Your task to perform on an android device: Clear the cart on amazon.com. Search for "lenovo thinkpad" on amazon.com, select the first entry, add it to the cart, then select checkout. Image 0: 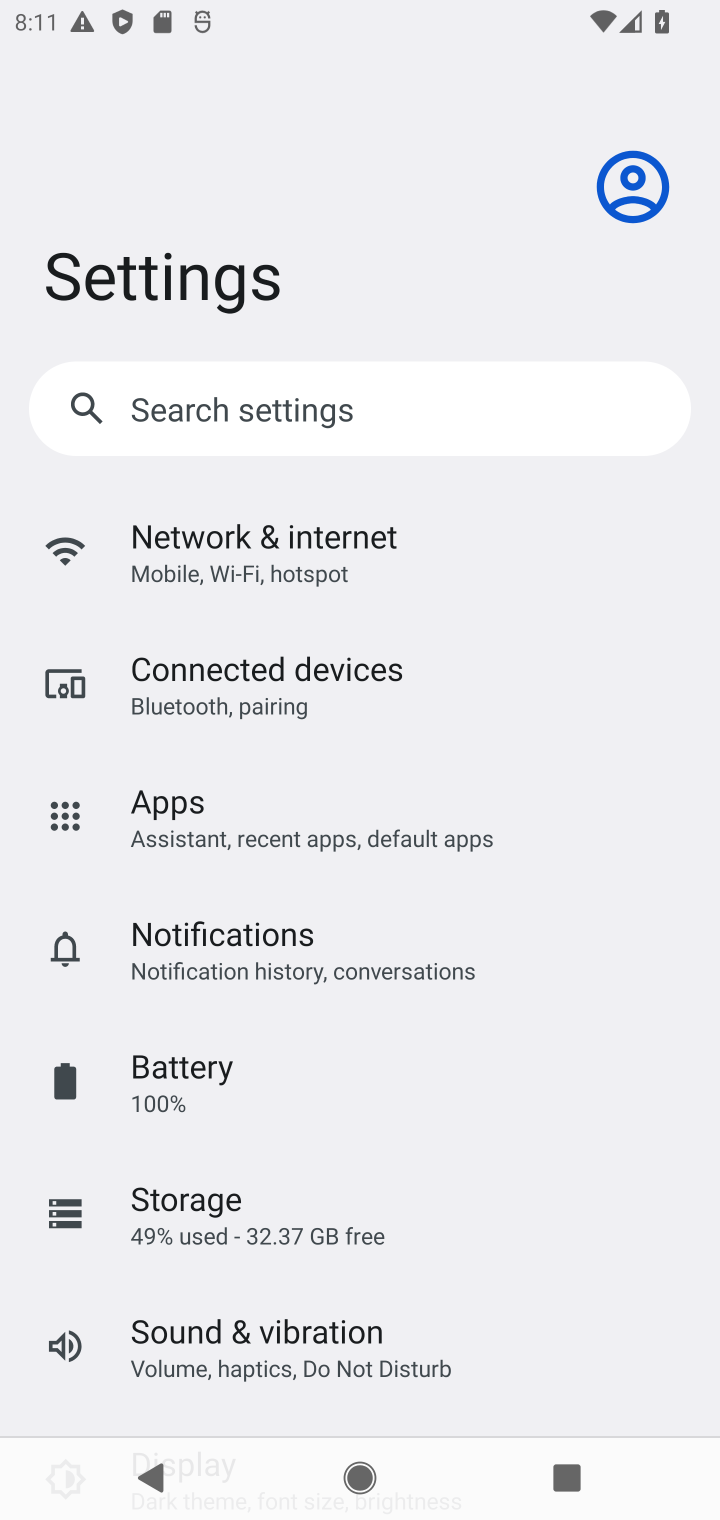
Step 0: press home button
Your task to perform on an android device: Clear the cart on amazon.com. Search for "lenovo thinkpad" on amazon.com, select the first entry, add it to the cart, then select checkout. Image 1: 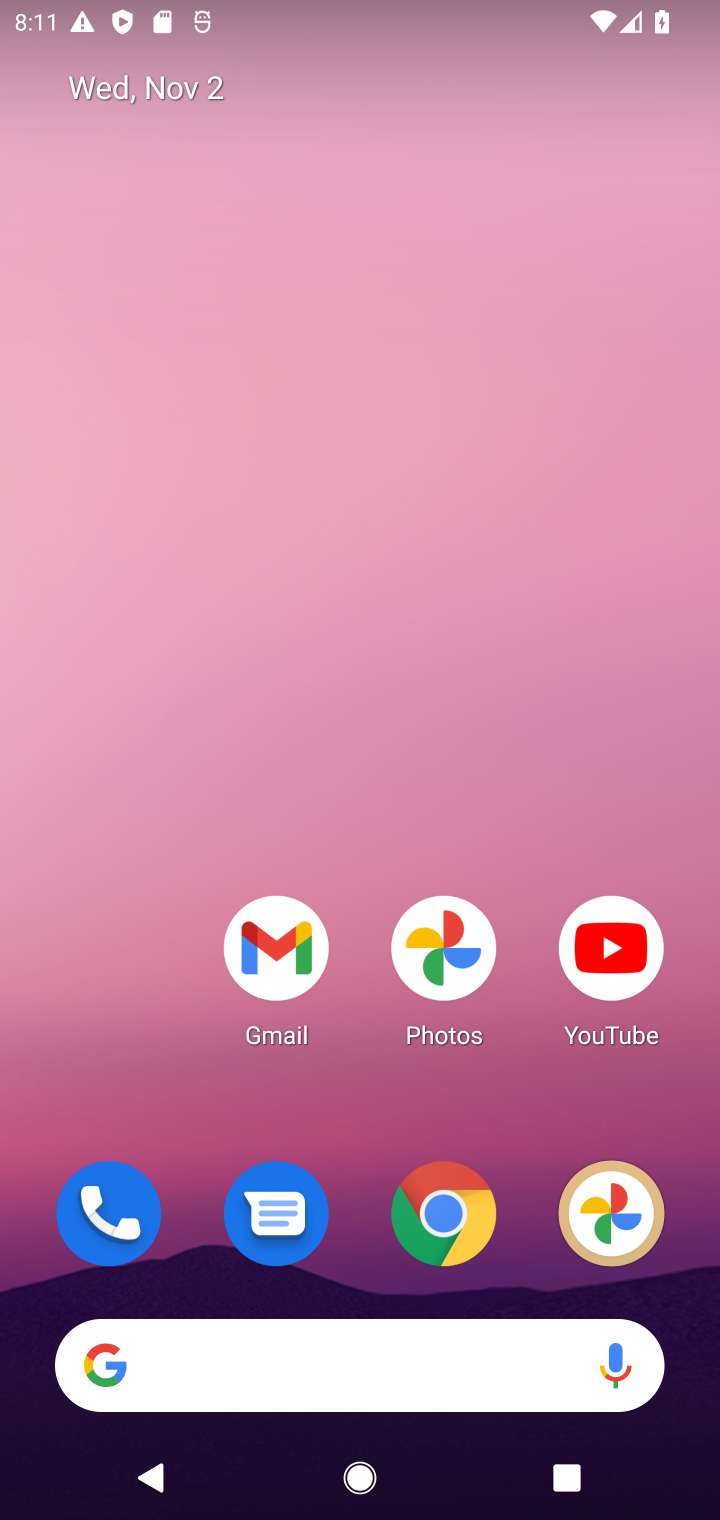
Step 1: click (461, 1240)
Your task to perform on an android device: Clear the cart on amazon.com. Search for "lenovo thinkpad" on amazon.com, select the first entry, add it to the cart, then select checkout. Image 2: 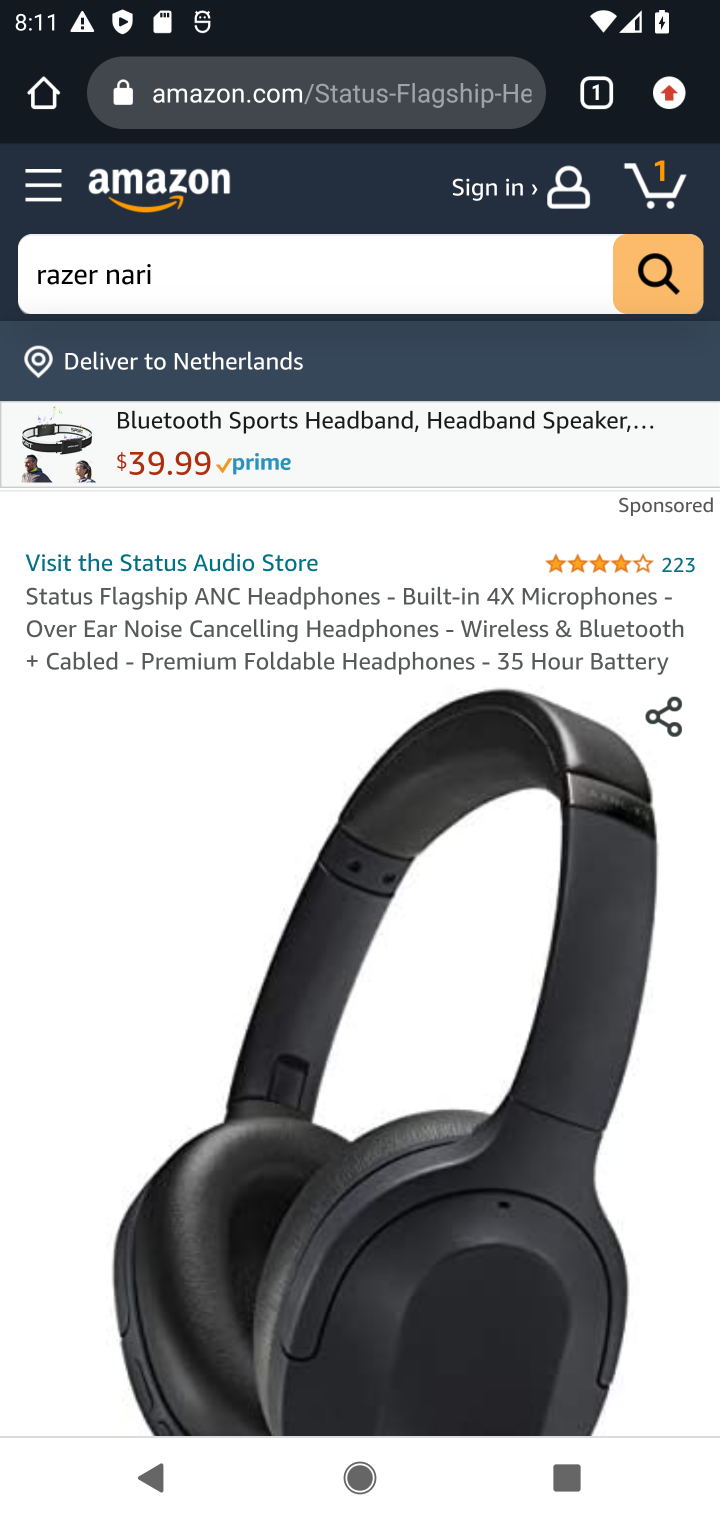
Step 2: click (667, 172)
Your task to perform on an android device: Clear the cart on amazon.com. Search for "lenovo thinkpad" on amazon.com, select the first entry, add it to the cart, then select checkout. Image 3: 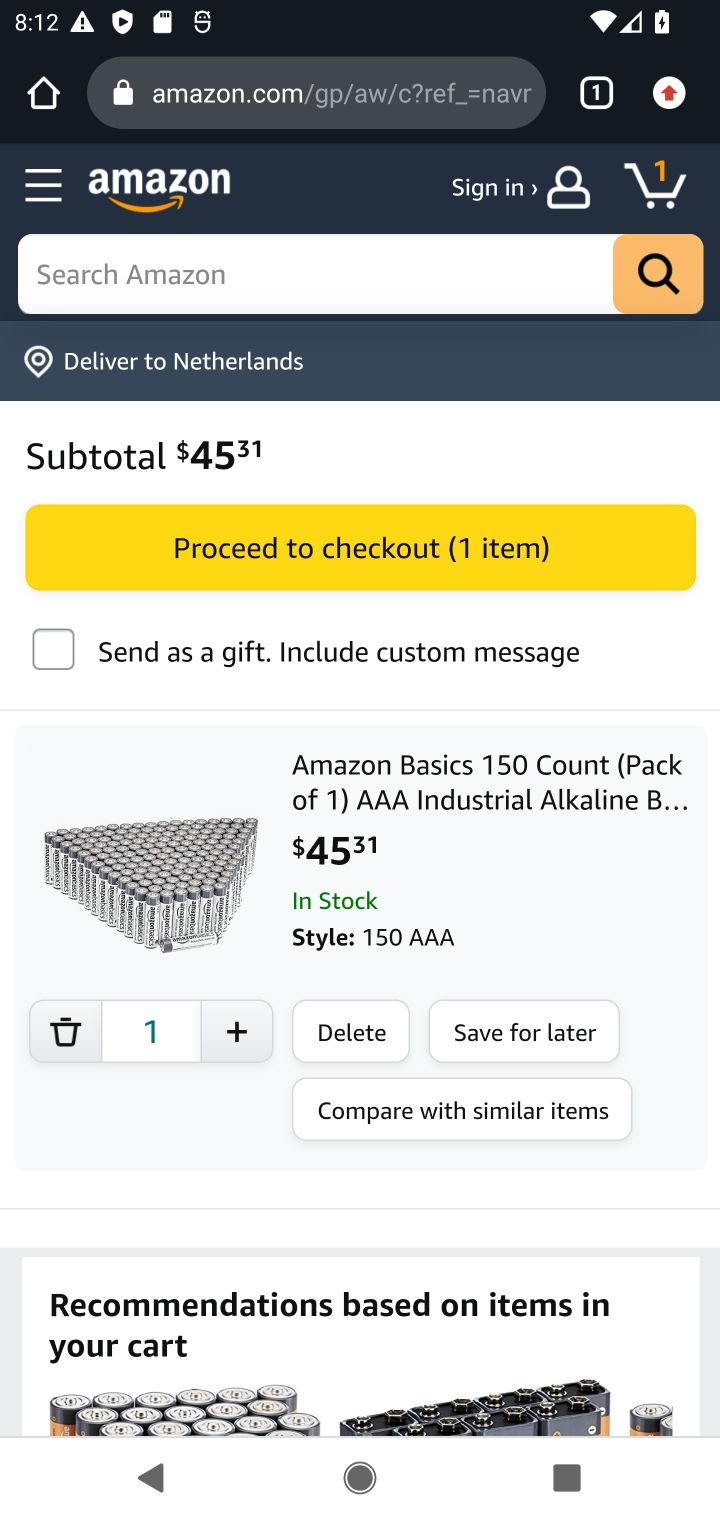
Step 3: click (323, 1030)
Your task to perform on an android device: Clear the cart on amazon.com. Search for "lenovo thinkpad" on amazon.com, select the first entry, add it to the cart, then select checkout. Image 4: 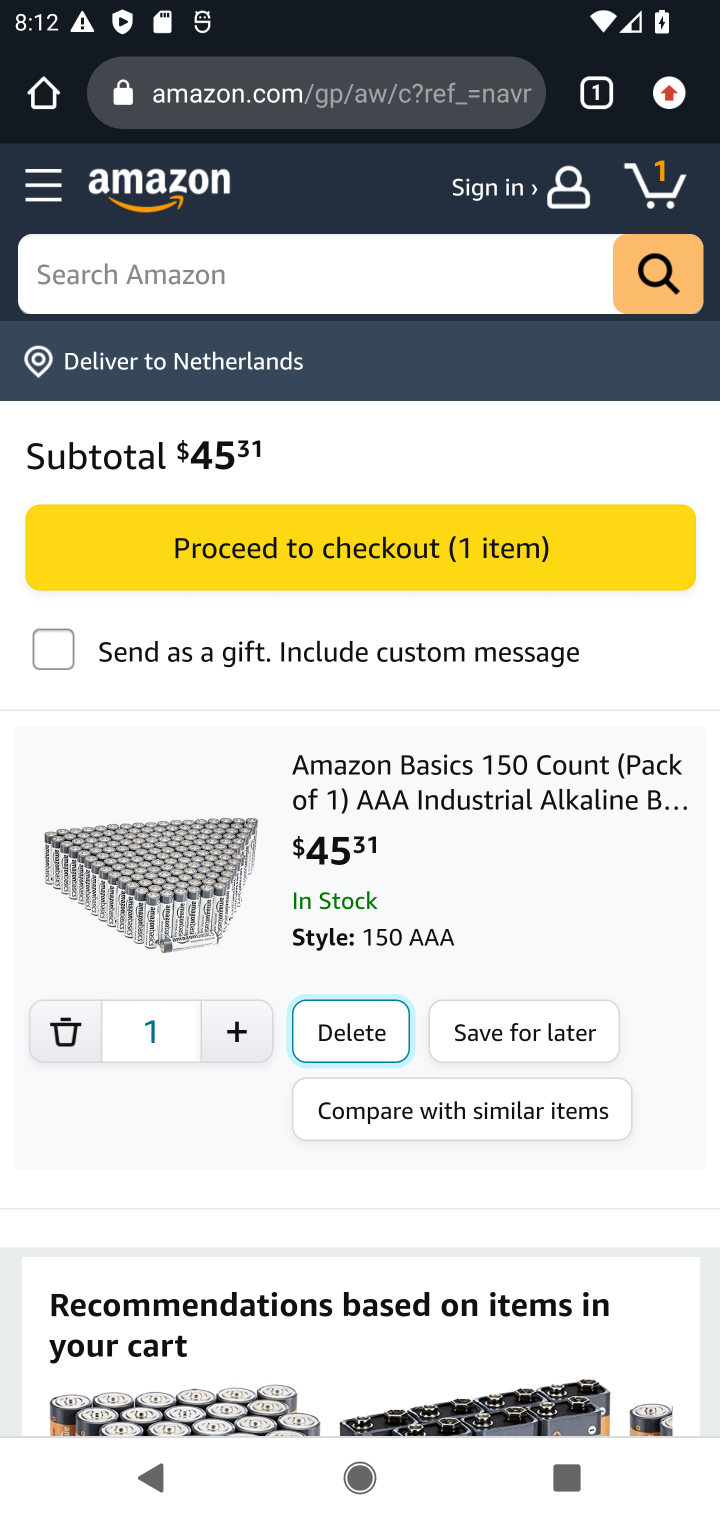
Step 4: click (346, 1026)
Your task to perform on an android device: Clear the cart on amazon.com. Search for "lenovo thinkpad" on amazon.com, select the first entry, add it to the cart, then select checkout. Image 5: 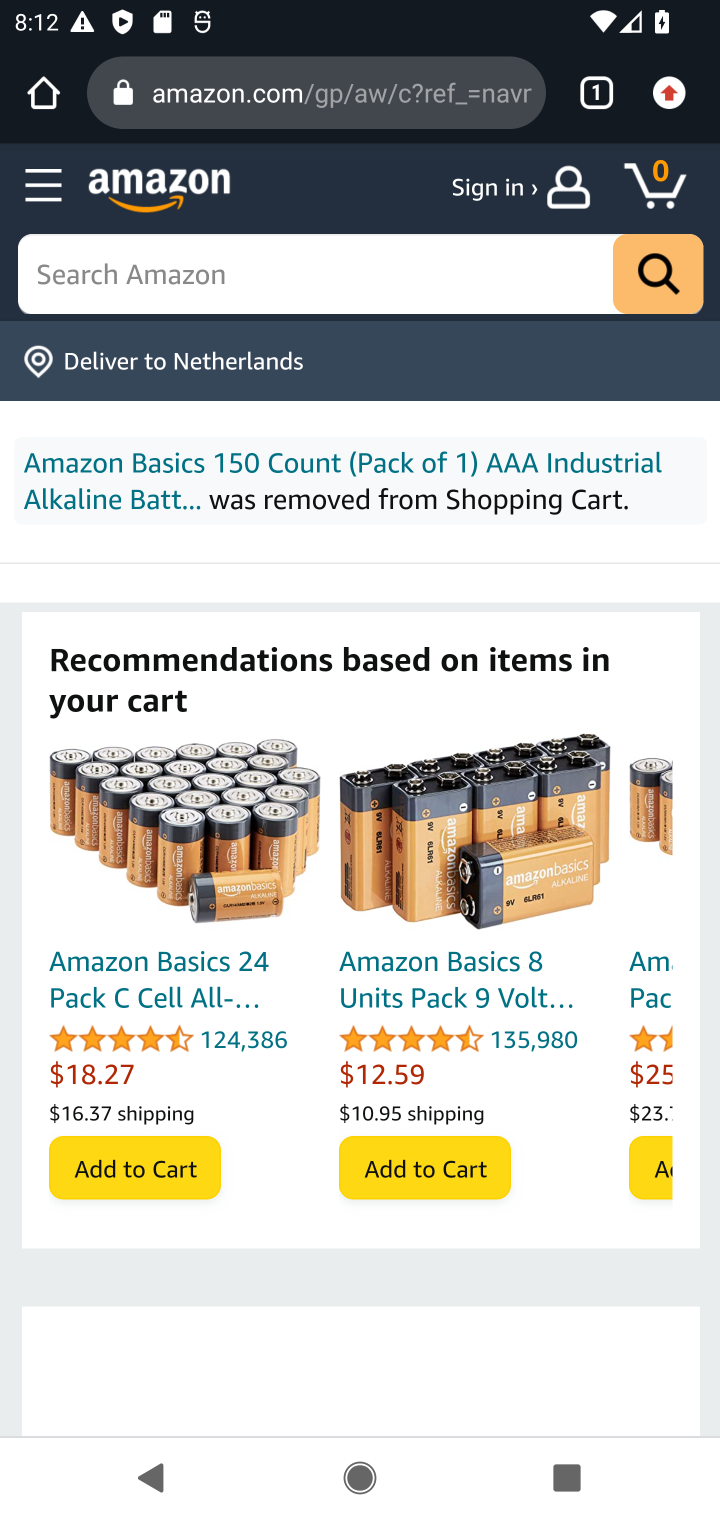
Step 5: click (336, 284)
Your task to perform on an android device: Clear the cart on amazon.com. Search for "lenovo thinkpad" on amazon.com, select the first entry, add it to the cart, then select checkout. Image 6: 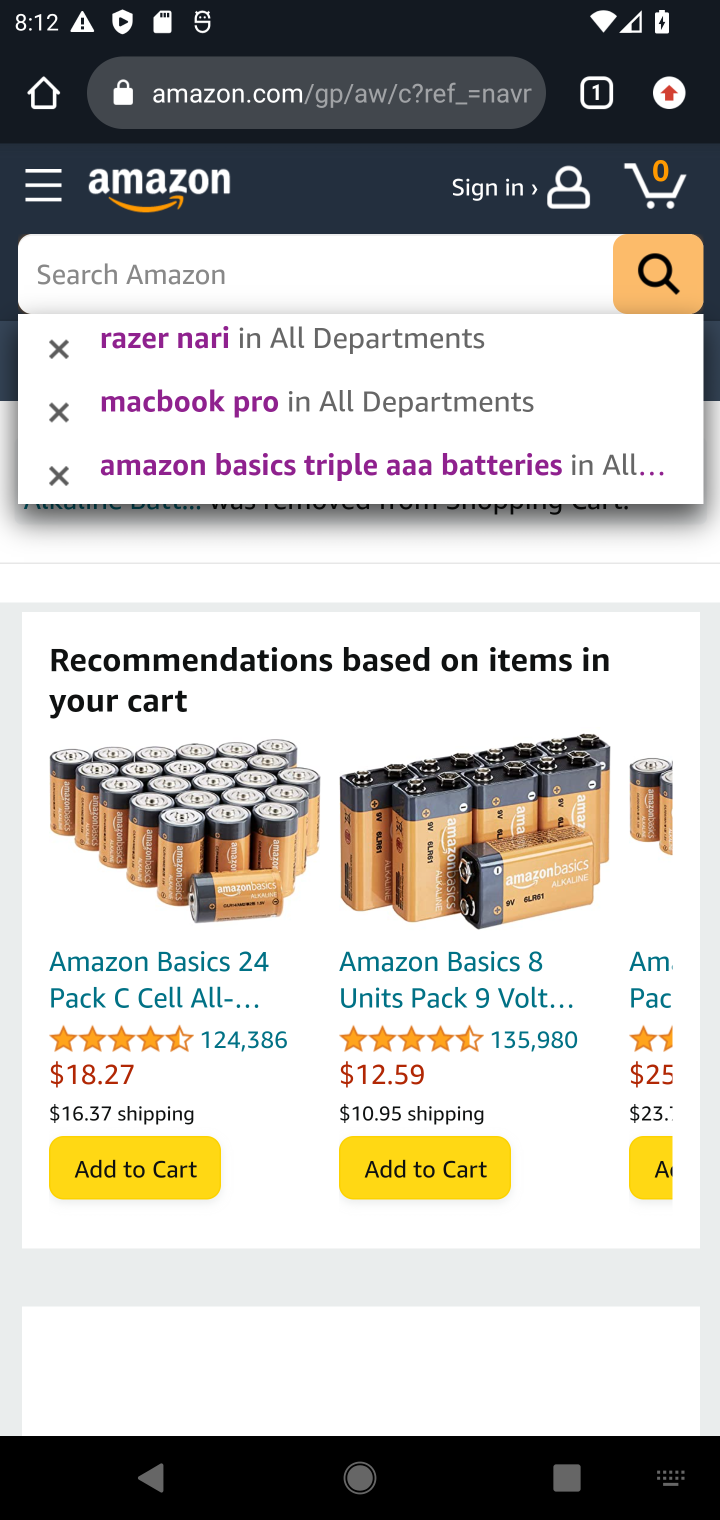
Step 6: type "lenovo thinkpad"
Your task to perform on an android device: Clear the cart on amazon.com. Search for "lenovo thinkpad" on amazon.com, select the first entry, add it to the cart, then select checkout. Image 7: 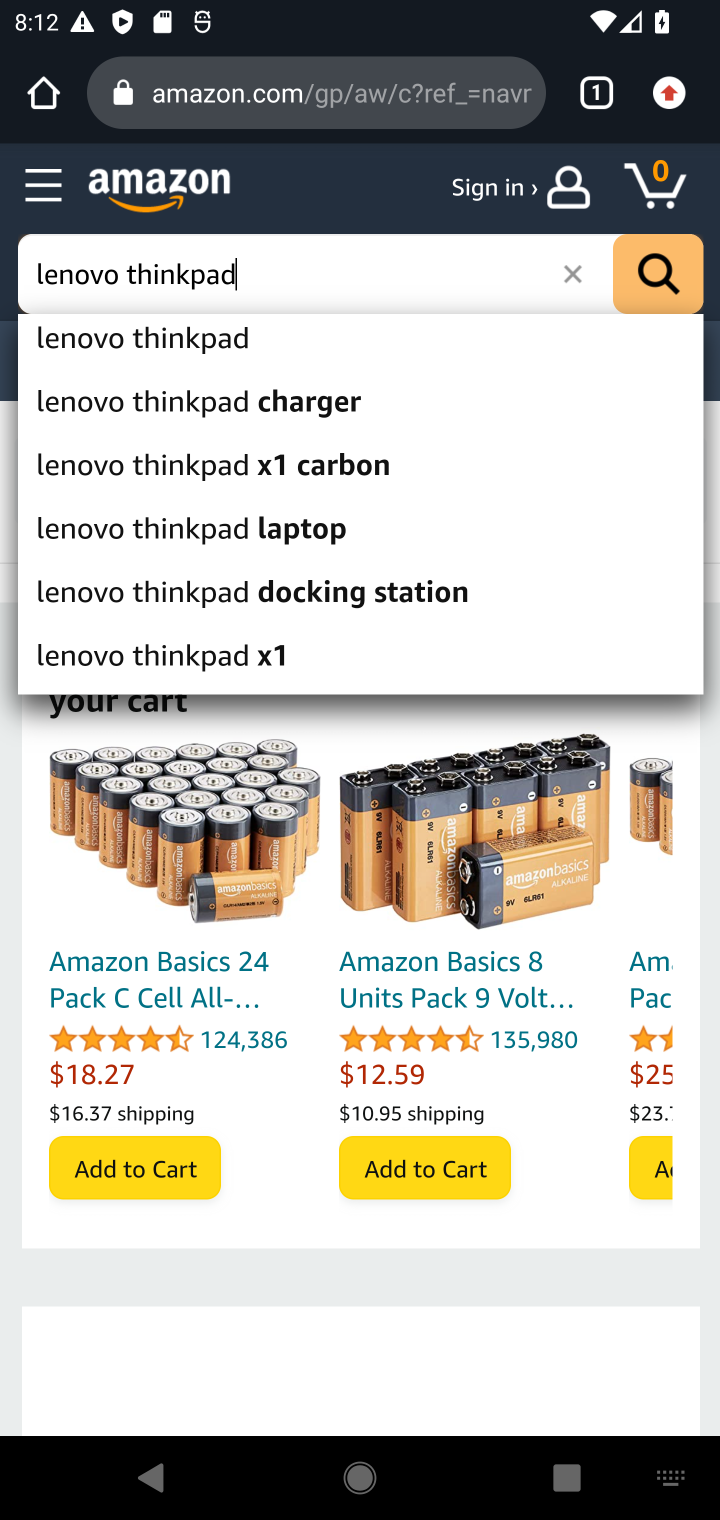
Step 7: click (98, 340)
Your task to perform on an android device: Clear the cart on amazon.com. Search for "lenovo thinkpad" on amazon.com, select the first entry, add it to the cart, then select checkout. Image 8: 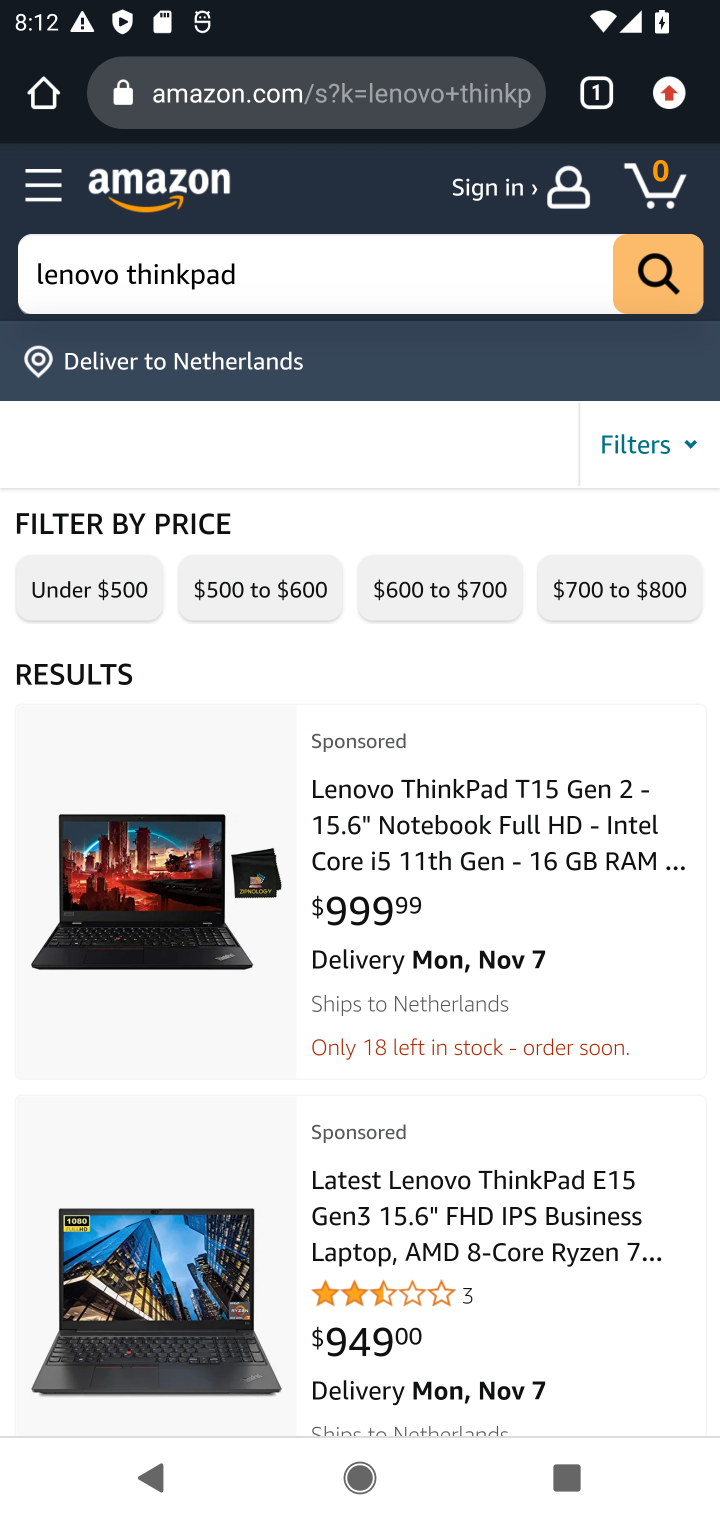
Step 8: click (338, 922)
Your task to perform on an android device: Clear the cart on amazon.com. Search for "lenovo thinkpad" on amazon.com, select the first entry, add it to the cart, then select checkout. Image 9: 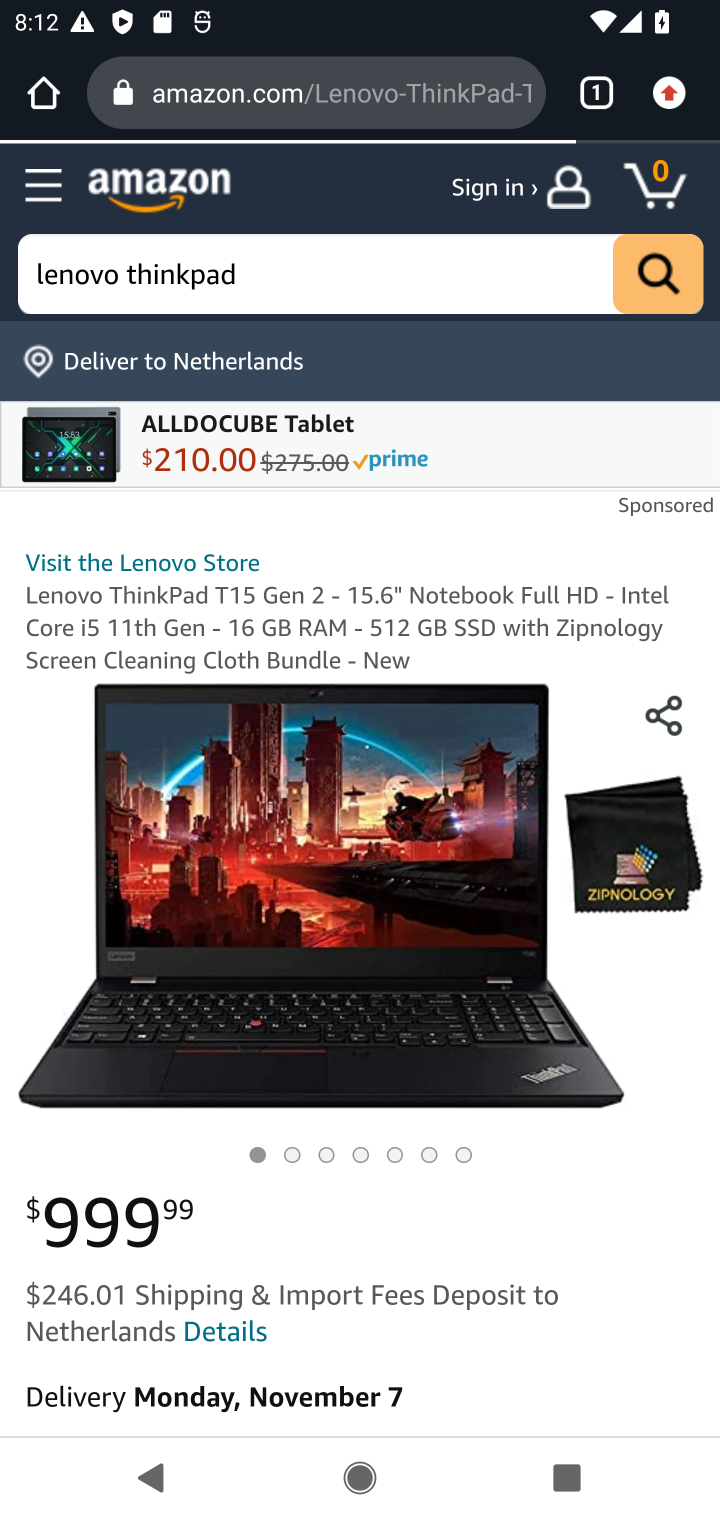
Step 9: drag from (337, 1138) to (366, 673)
Your task to perform on an android device: Clear the cart on amazon.com. Search for "lenovo thinkpad" on amazon.com, select the first entry, add it to the cart, then select checkout. Image 10: 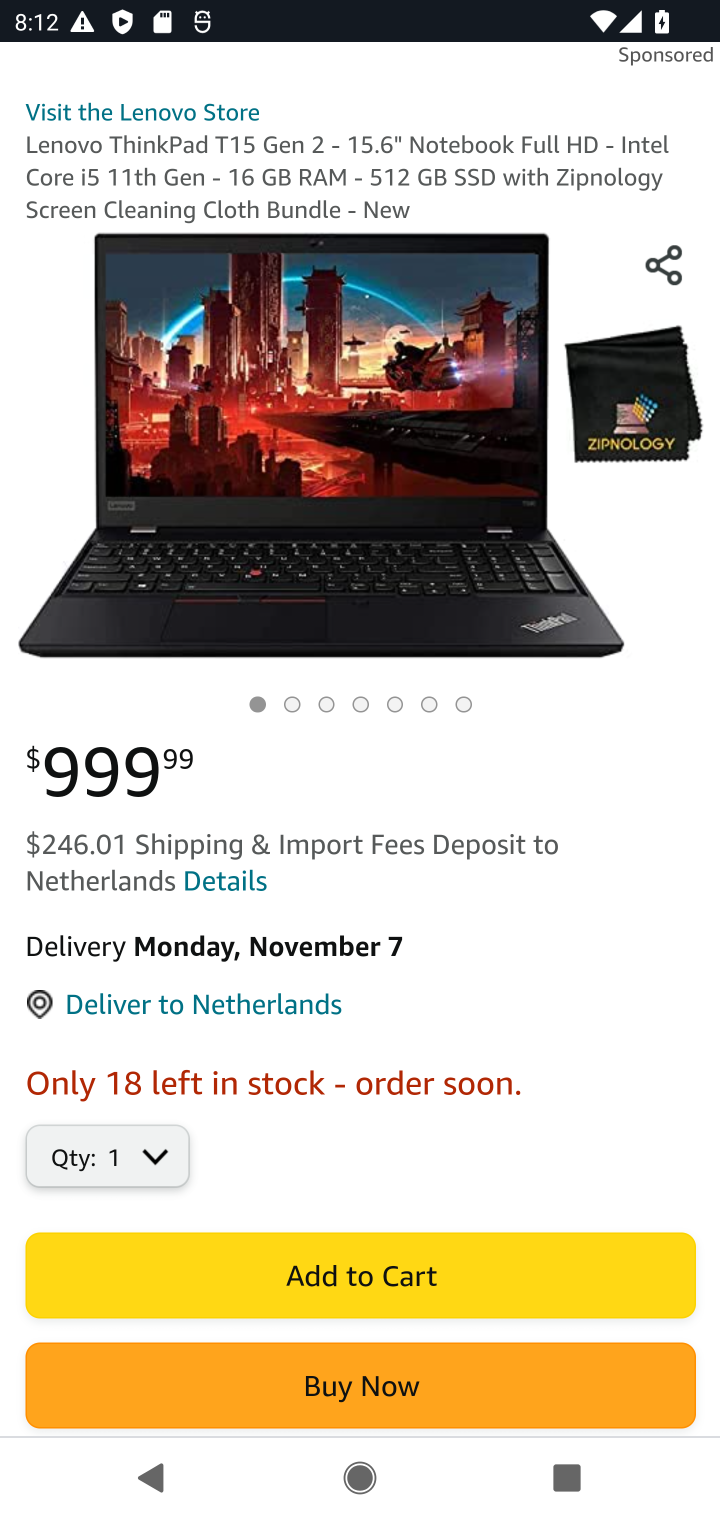
Step 10: click (322, 1279)
Your task to perform on an android device: Clear the cart on amazon.com. Search for "lenovo thinkpad" on amazon.com, select the first entry, add it to the cart, then select checkout. Image 11: 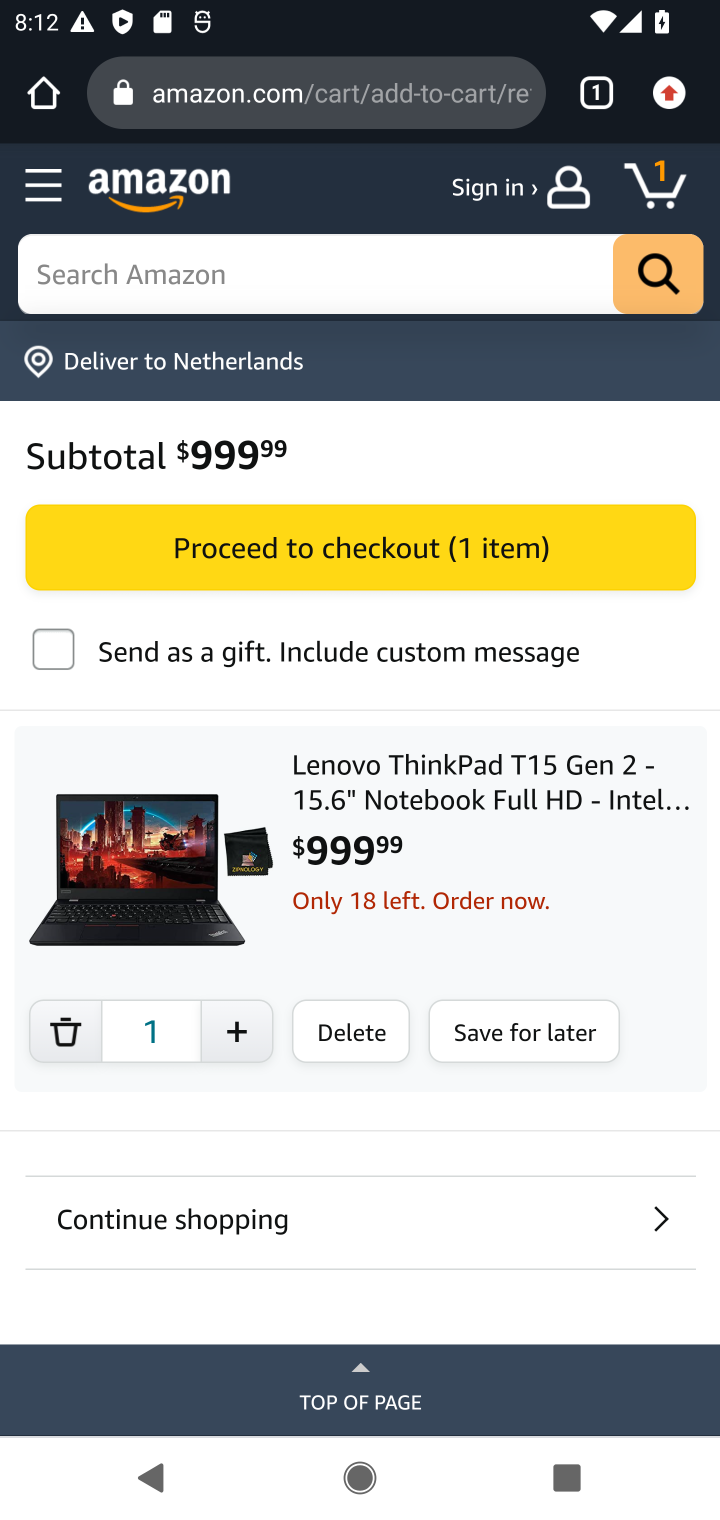
Step 11: click (309, 556)
Your task to perform on an android device: Clear the cart on amazon.com. Search for "lenovo thinkpad" on amazon.com, select the first entry, add it to the cart, then select checkout. Image 12: 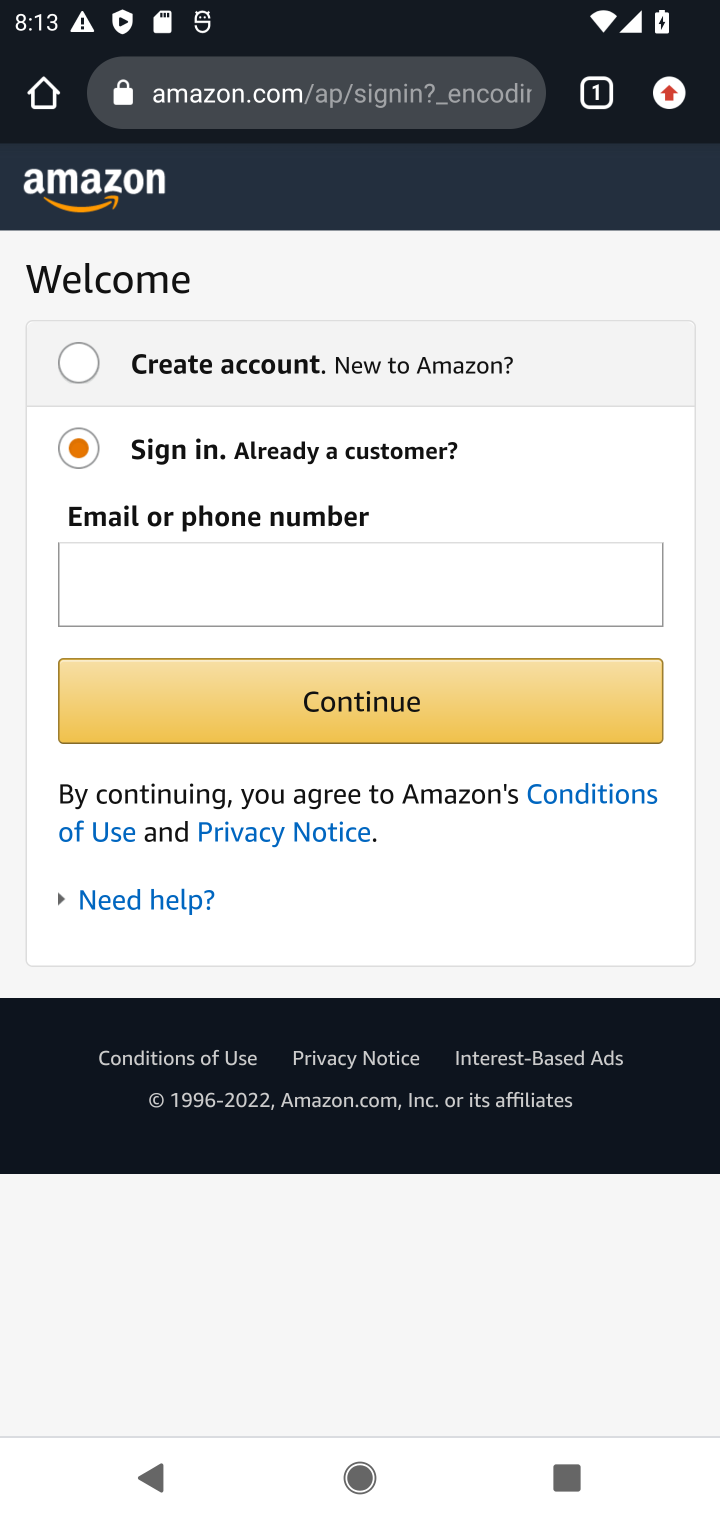
Step 12: task complete